Your task to perform on an android device: clear history in the chrome app Image 0: 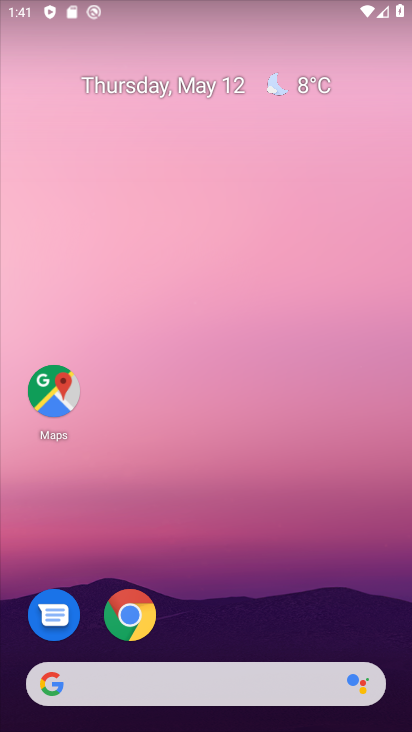
Step 0: click (132, 623)
Your task to perform on an android device: clear history in the chrome app Image 1: 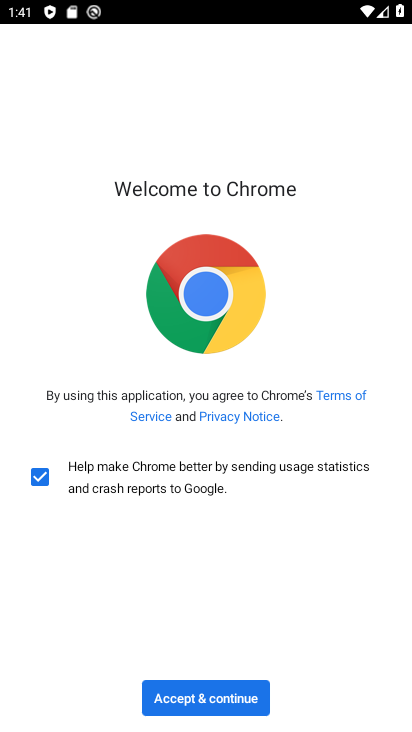
Step 1: click (230, 700)
Your task to perform on an android device: clear history in the chrome app Image 2: 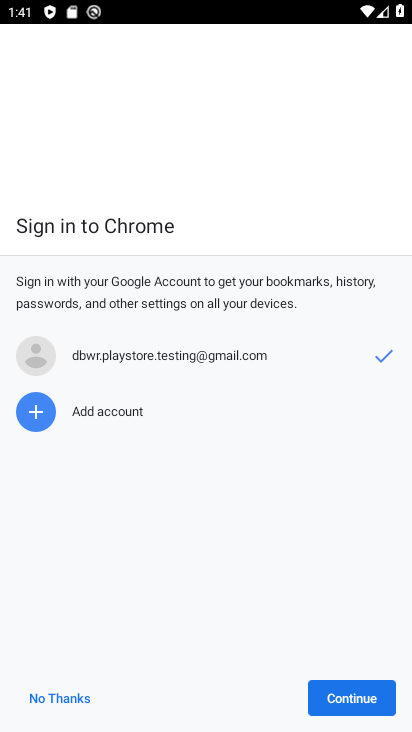
Step 2: click (351, 703)
Your task to perform on an android device: clear history in the chrome app Image 3: 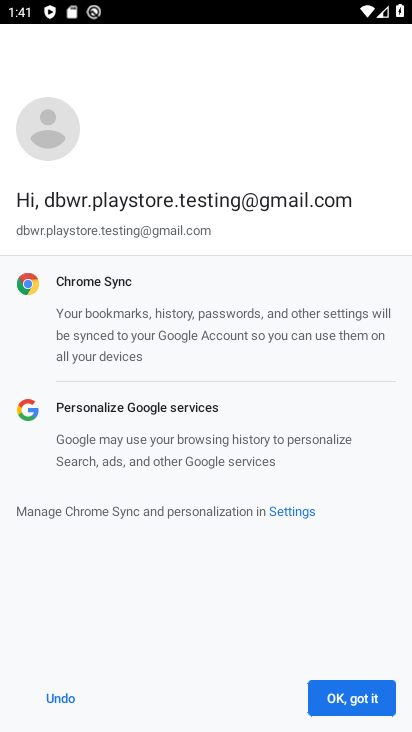
Step 3: click (351, 703)
Your task to perform on an android device: clear history in the chrome app Image 4: 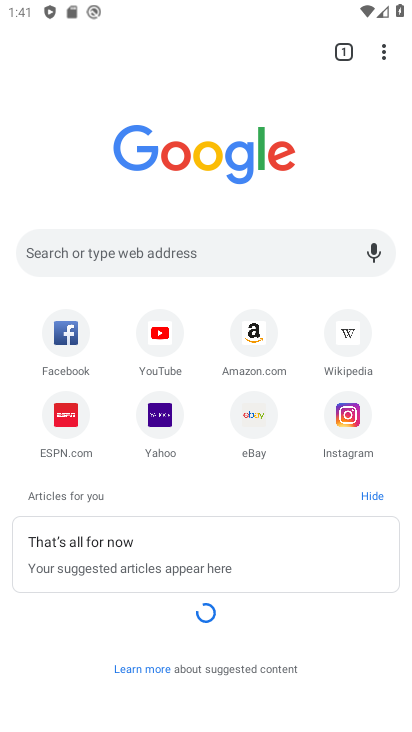
Step 4: click (376, 51)
Your task to perform on an android device: clear history in the chrome app Image 5: 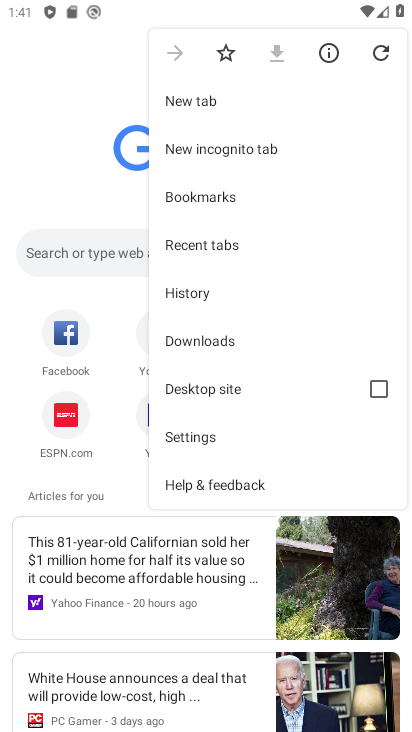
Step 5: click (237, 439)
Your task to perform on an android device: clear history in the chrome app Image 6: 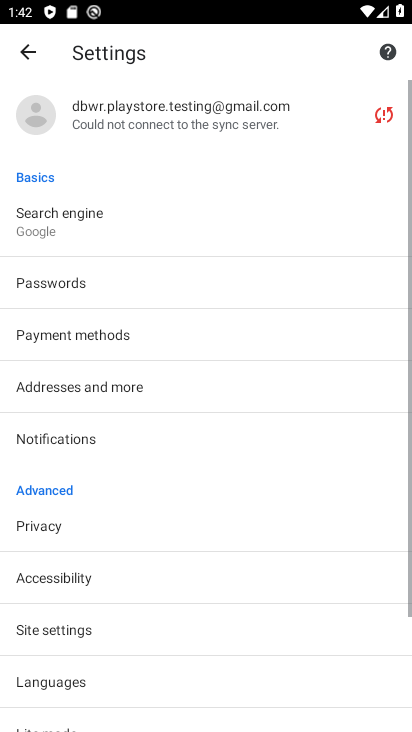
Step 6: drag from (228, 569) to (217, 436)
Your task to perform on an android device: clear history in the chrome app Image 7: 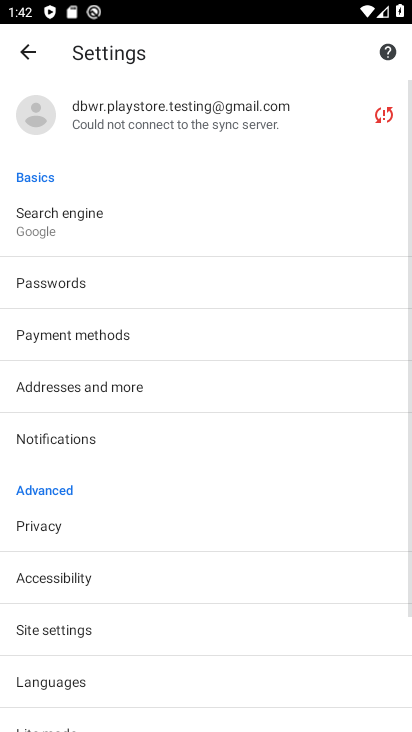
Step 7: press back button
Your task to perform on an android device: clear history in the chrome app Image 8: 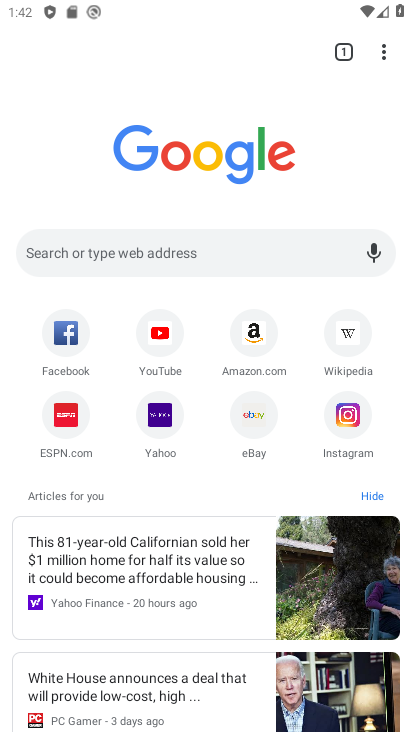
Step 8: click (381, 44)
Your task to perform on an android device: clear history in the chrome app Image 9: 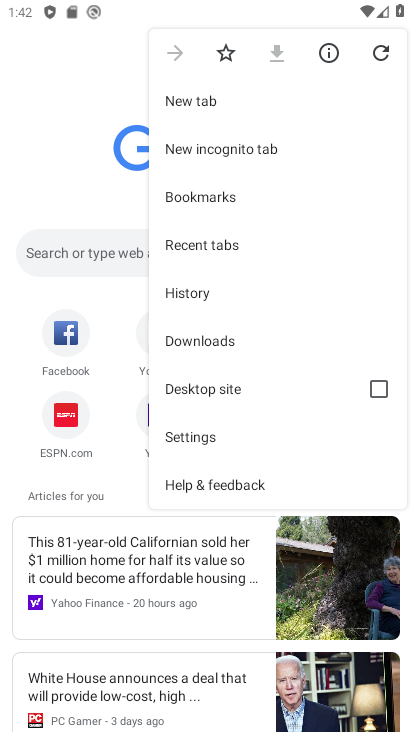
Step 9: click (228, 286)
Your task to perform on an android device: clear history in the chrome app Image 10: 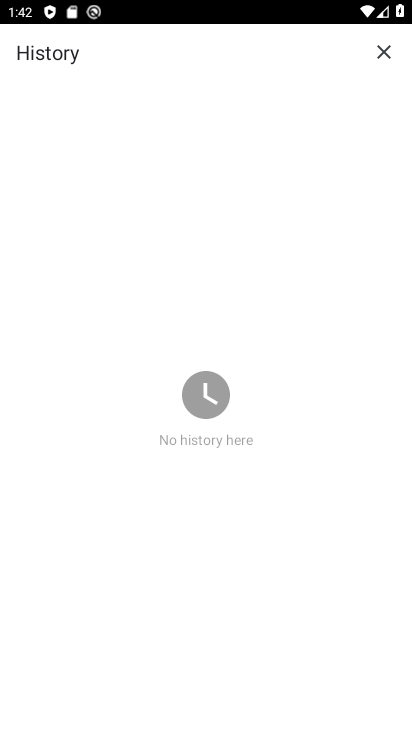
Step 10: task complete